Your task to perform on an android device: Open maps Image 0: 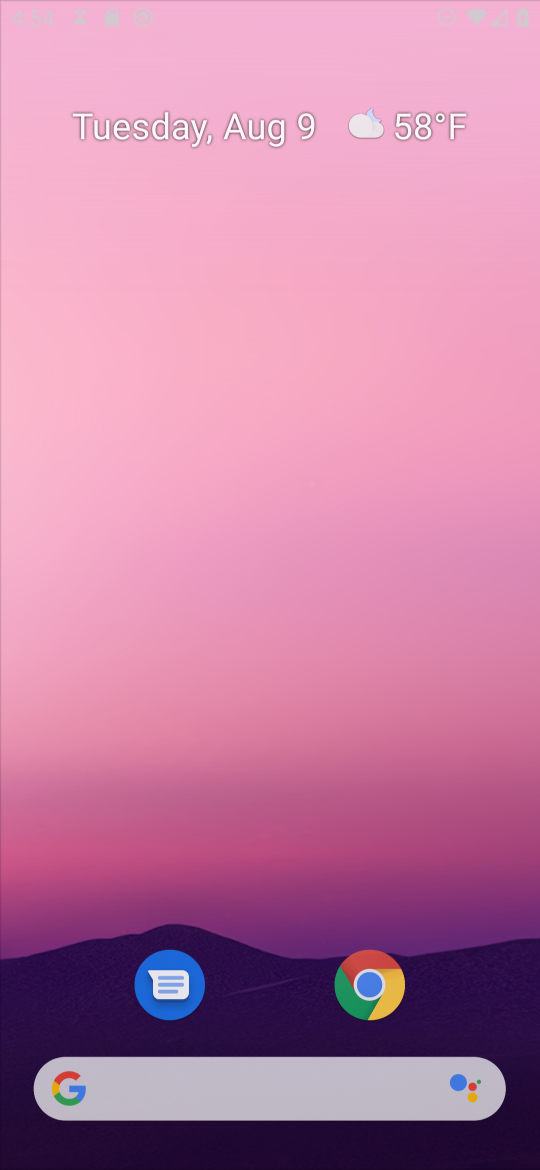
Step 0: press home button
Your task to perform on an android device: Open maps Image 1: 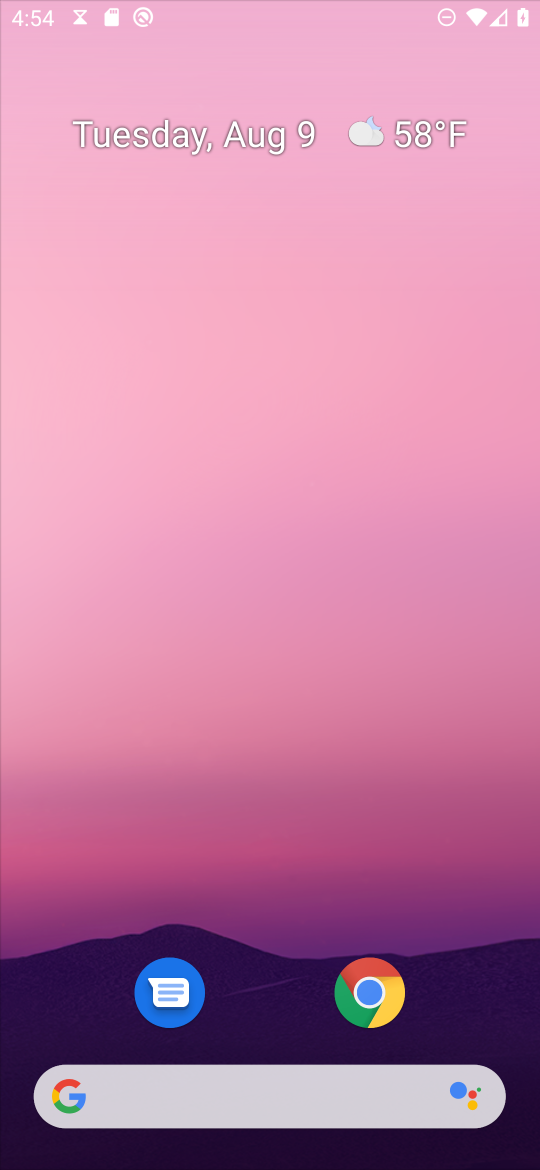
Step 1: drag from (212, 1093) to (359, 4)
Your task to perform on an android device: Open maps Image 2: 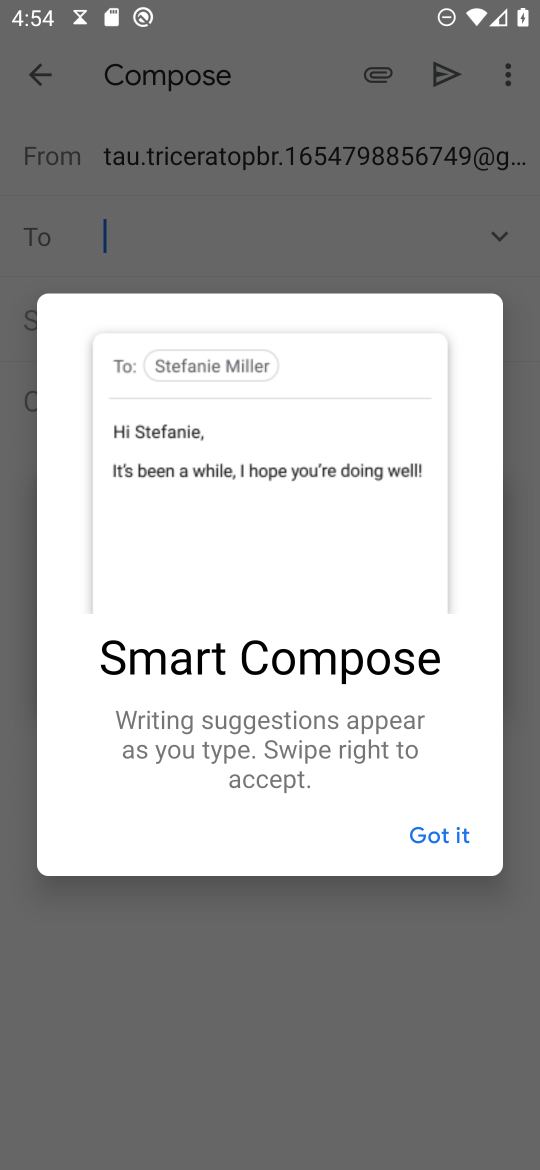
Step 2: click (420, 827)
Your task to perform on an android device: Open maps Image 3: 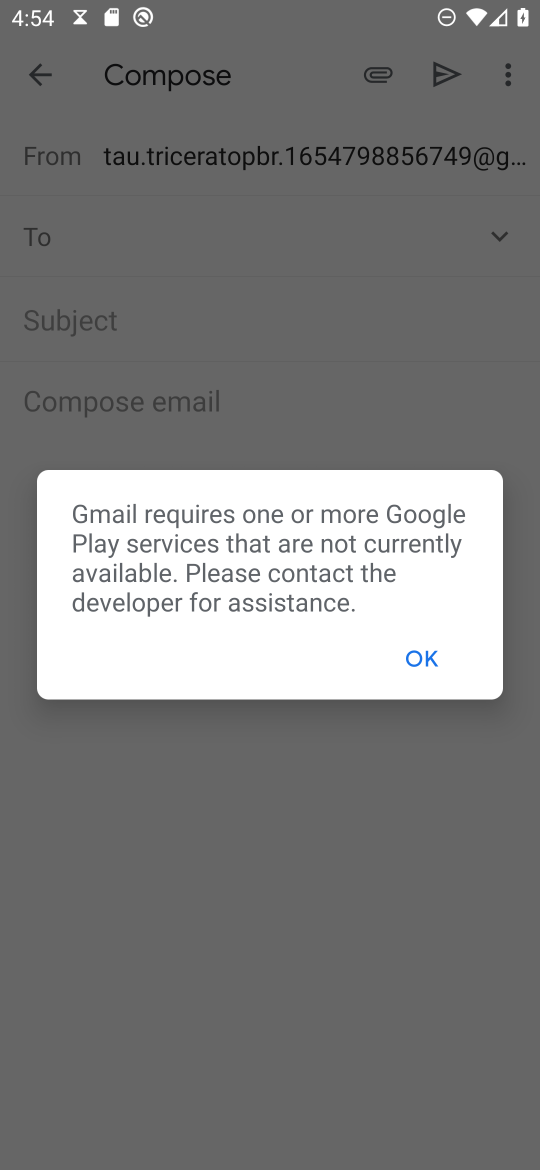
Step 3: click (116, 930)
Your task to perform on an android device: Open maps Image 4: 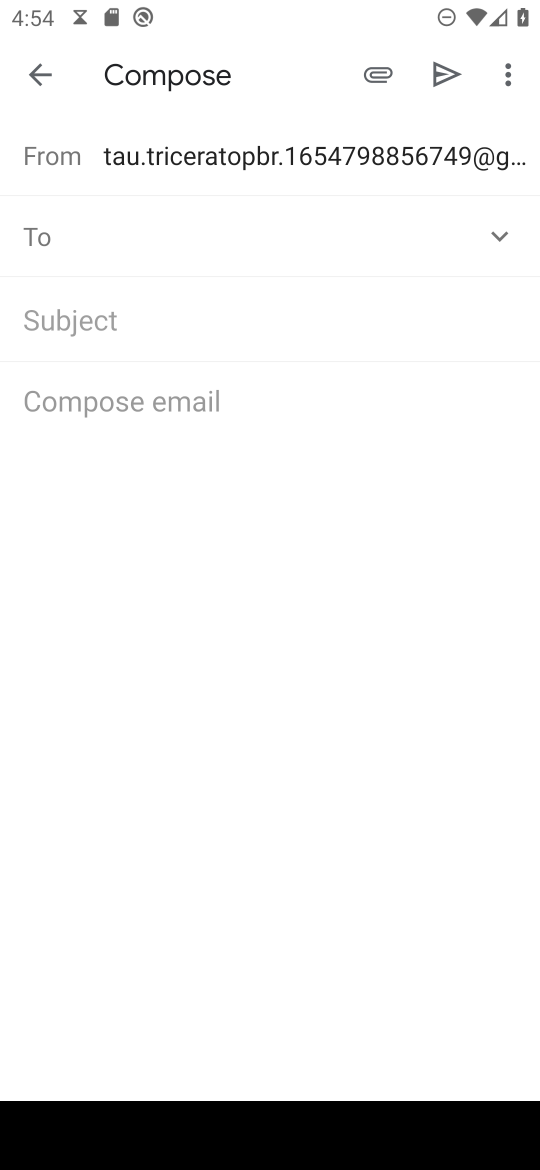
Step 4: click (395, 586)
Your task to perform on an android device: Open maps Image 5: 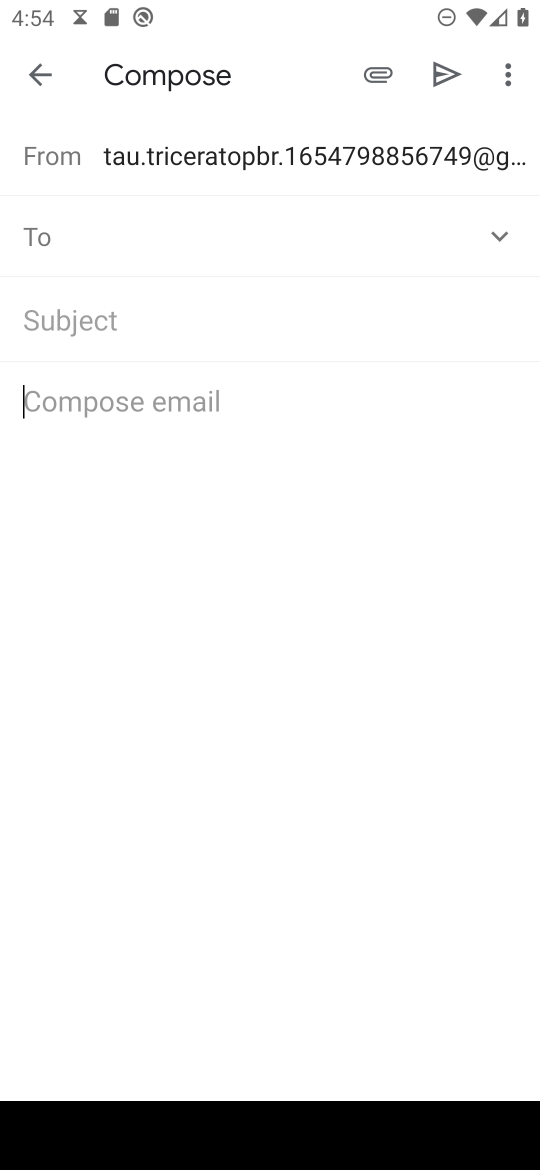
Step 5: click (395, 586)
Your task to perform on an android device: Open maps Image 6: 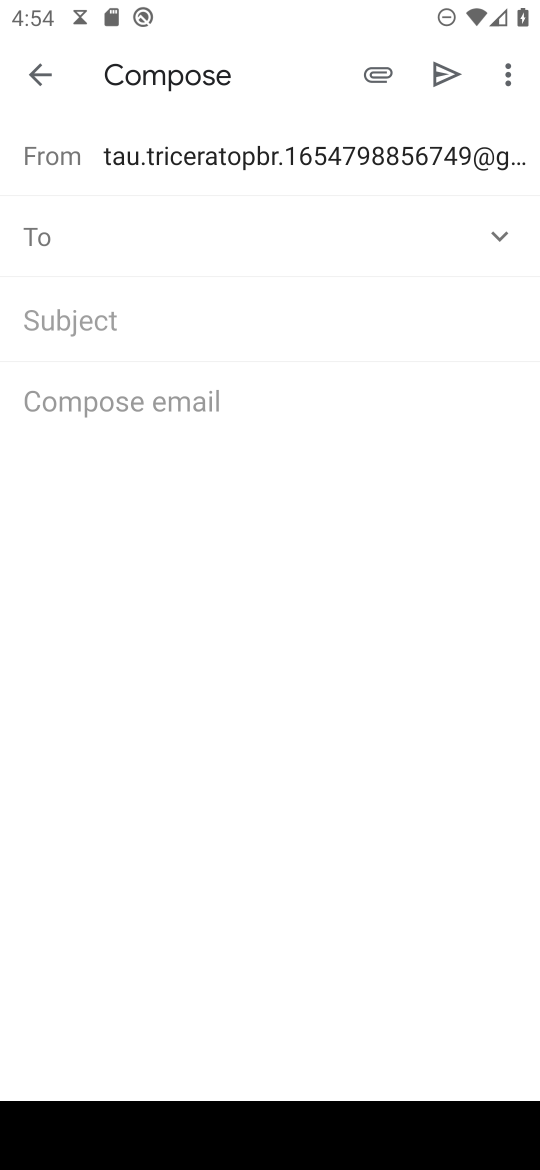
Step 6: click (395, 586)
Your task to perform on an android device: Open maps Image 7: 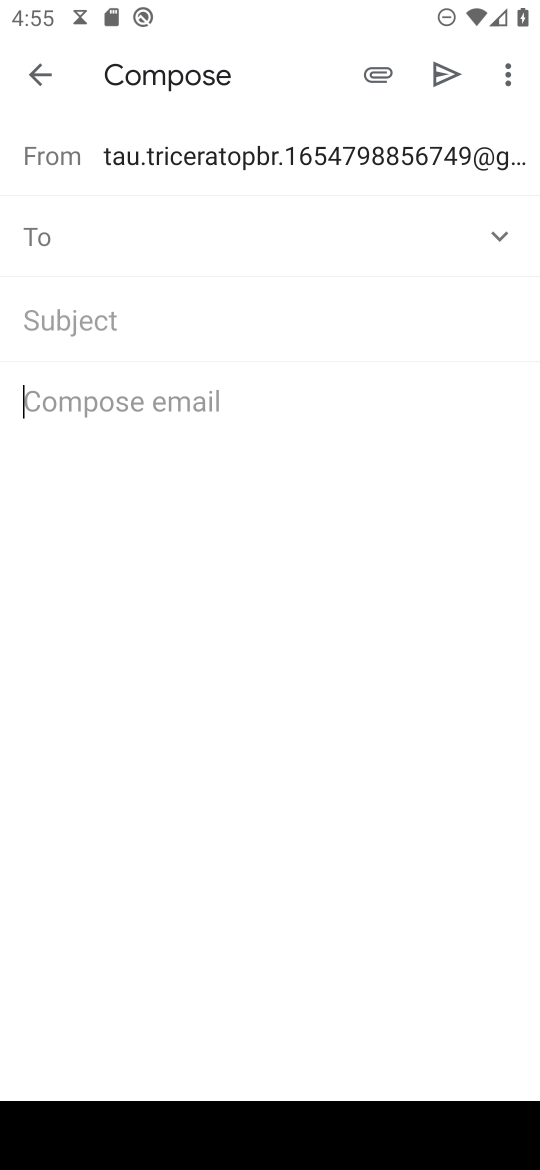
Step 7: press home button
Your task to perform on an android device: Open maps Image 8: 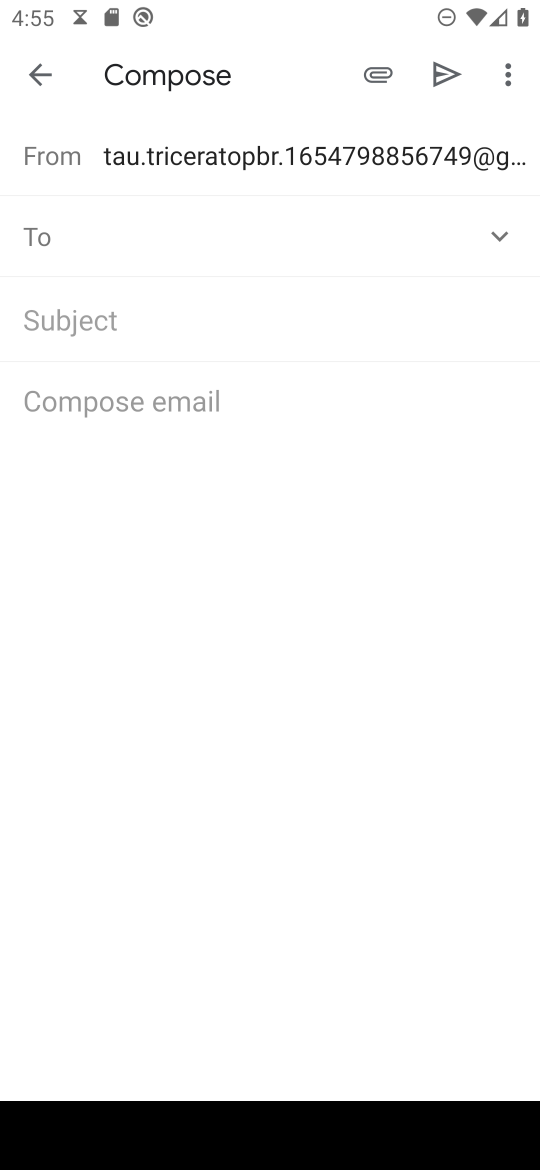
Step 8: press home button
Your task to perform on an android device: Open maps Image 9: 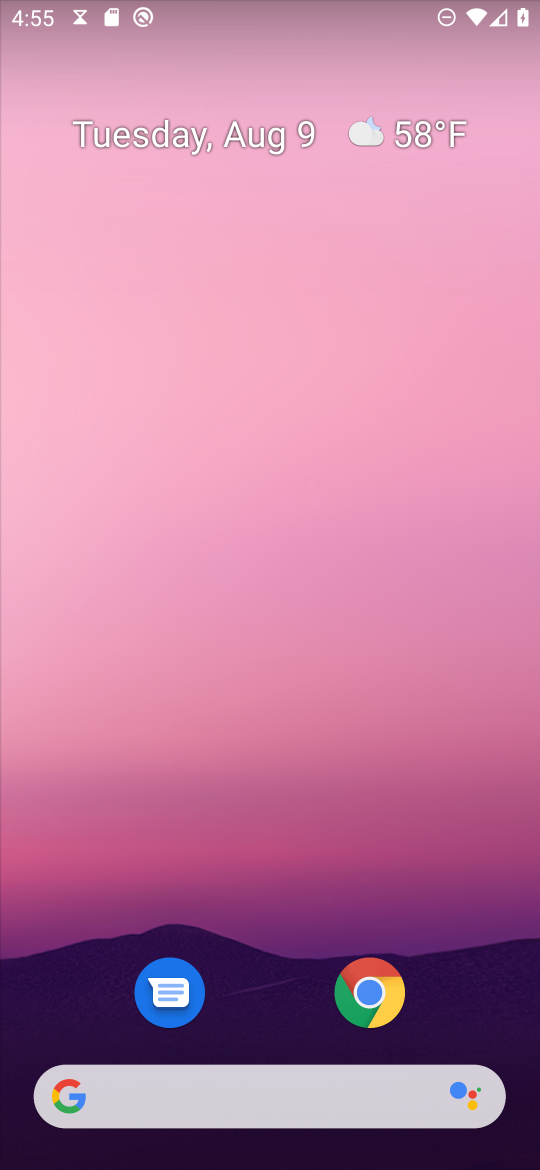
Step 9: drag from (397, 1084) to (397, 82)
Your task to perform on an android device: Open maps Image 10: 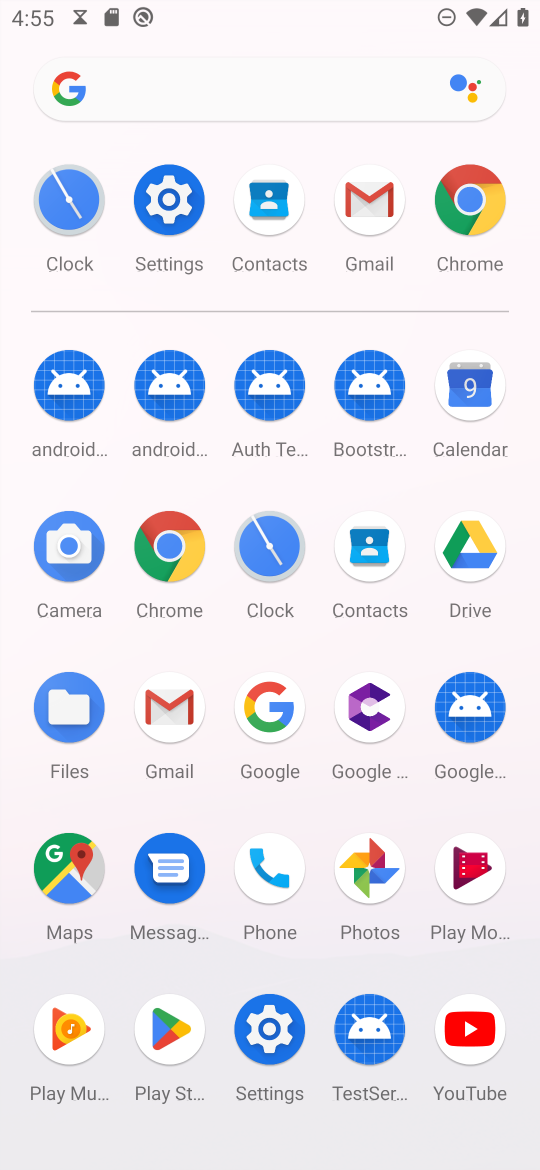
Step 10: click (76, 887)
Your task to perform on an android device: Open maps Image 11: 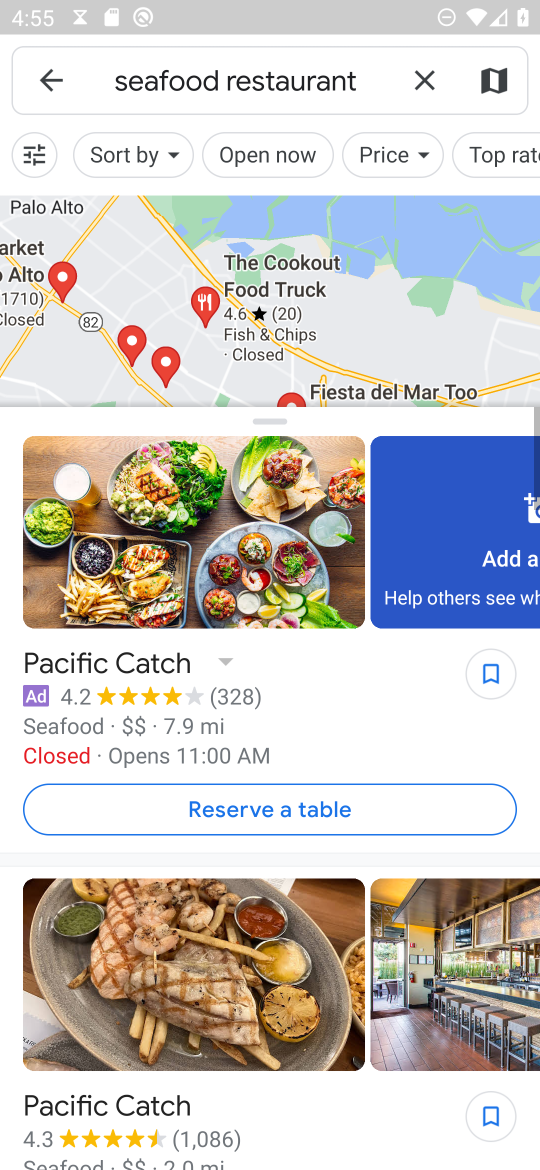
Step 11: task complete